Your task to perform on an android device: Search for vegetarian restaurants on Maps Image 0: 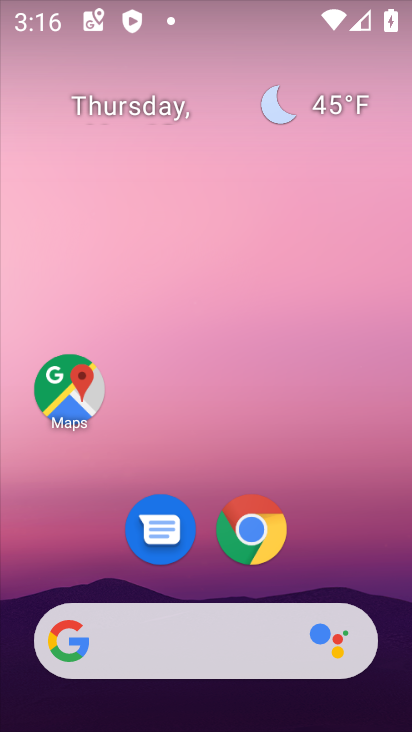
Step 0: drag from (356, 518) to (327, 140)
Your task to perform on an android device: Search for vegetarian restaurants on Maps Image 1: 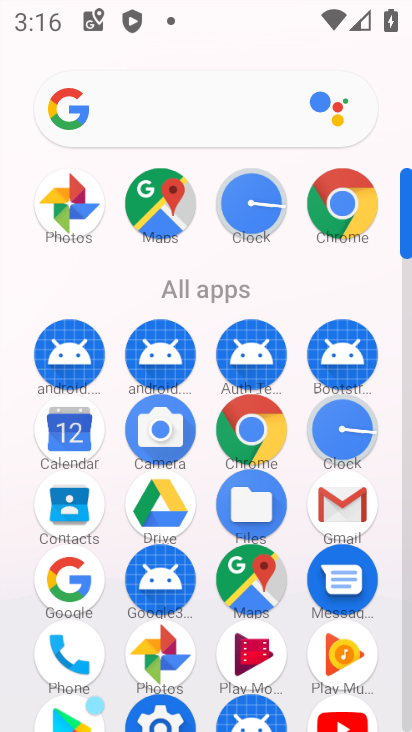
Step 1: click (173, 193)
Your task to perform on an android device: Search for vegetarian restaurants on Maps Image 2: 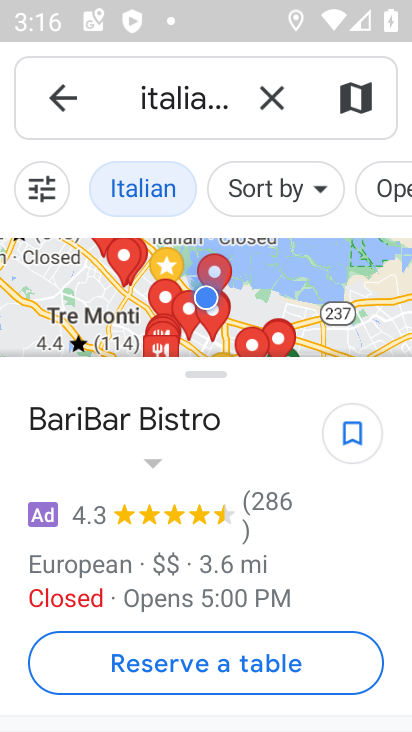
Step 2: click (273, 101)
Your task to perform on an android device: Search for vegetarian restaurants on Maps Image 3: 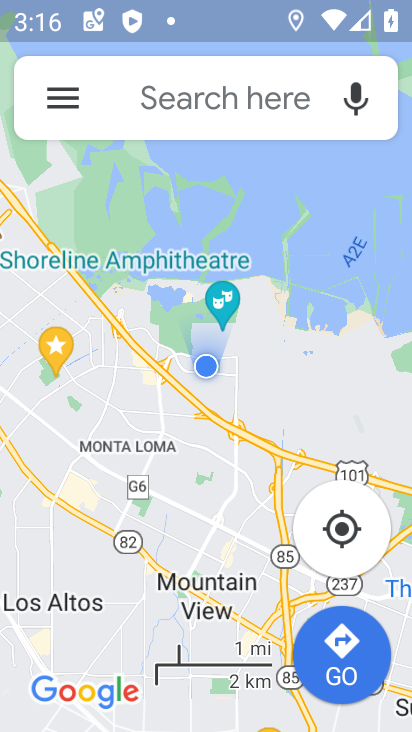
Step 3: click (273, 101)
Your task to perform on an android device: Search for vegetarian restaurants on Maps Image 4: 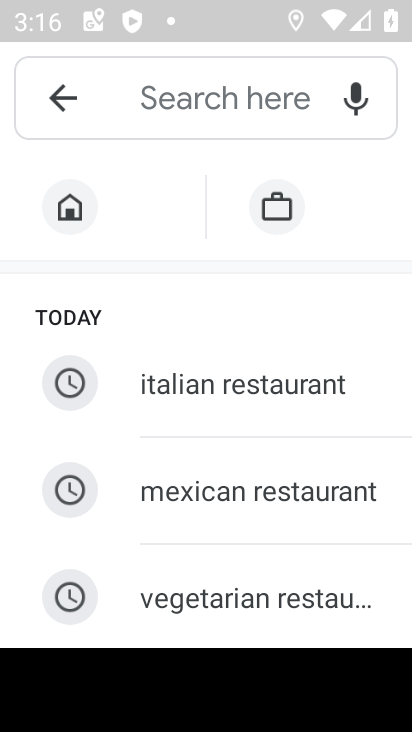
Step 4: click (203, 593)
Your task to perform on an android device: Search for vegetarian restaurants on Maps Image 5: 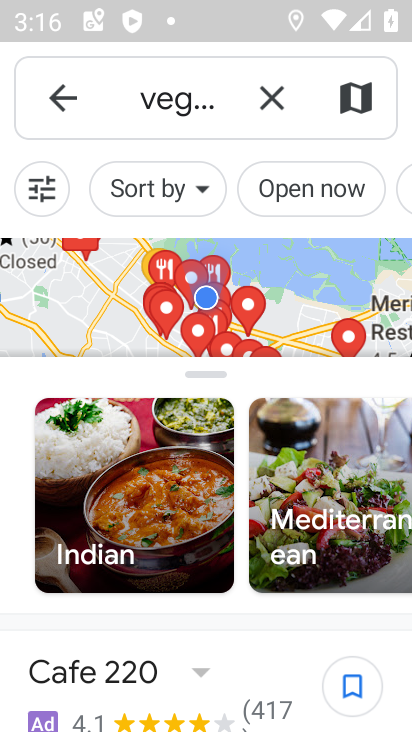
Step 5: task complete